Your task to perform on an android device: turn on bluetooth scan Image 0: 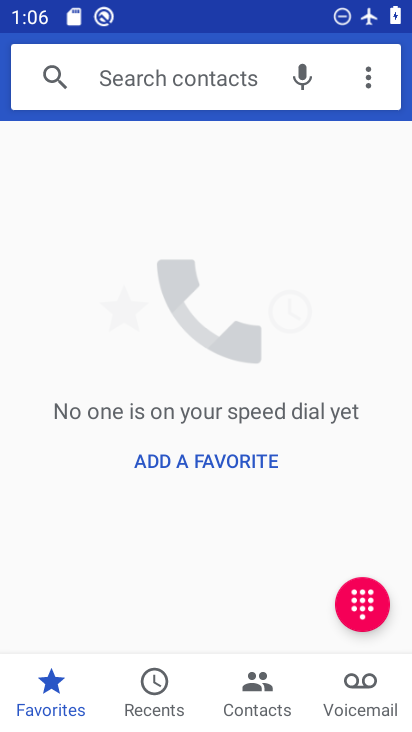
Step 0: press home button
Your task to perform on an android device: turn on bluetooth scan Image 1: 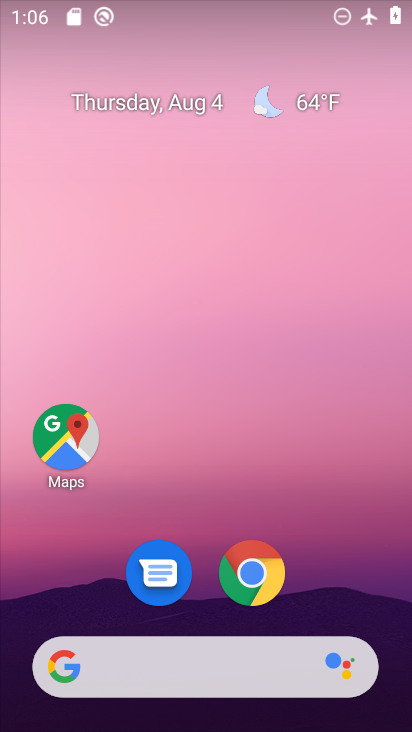
Step 1: drag from (353, 555) to (339, 111)
Your task to perform on an android device: turn on bluetooth scan Image 2: 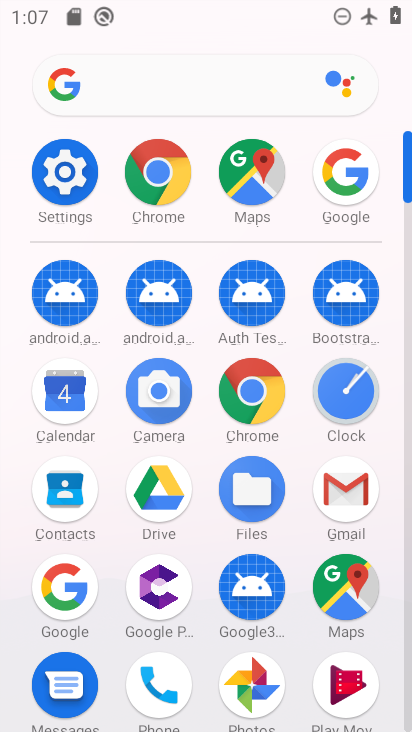
Step 2: click (65, 166)
Your task to perform on an android device: turn on bluetooth scan Image 3: 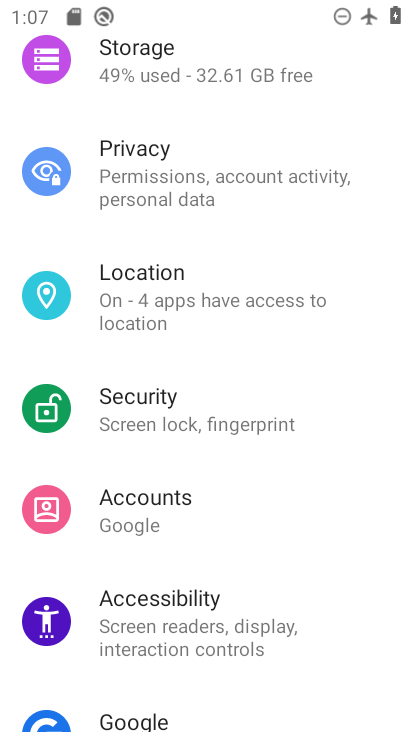
Step 3: click (192, 308)
Your task to perform on an android device: turn on bluetooth scan Image 4: 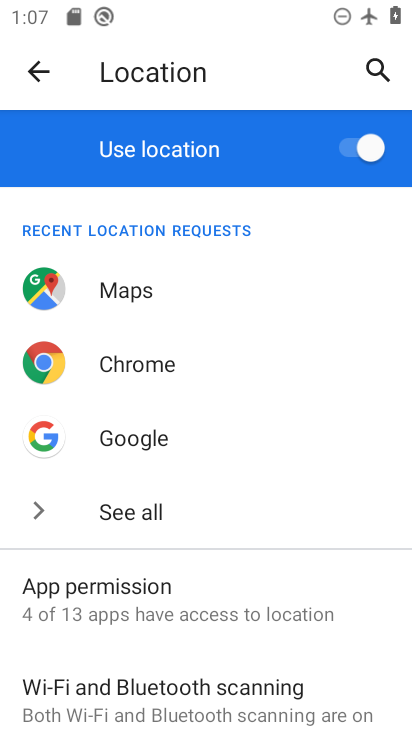
Step 4: drag from (250, 640) to (240, 220)
Your task to perform on an android device: turn on bluetooth scan Image 5: 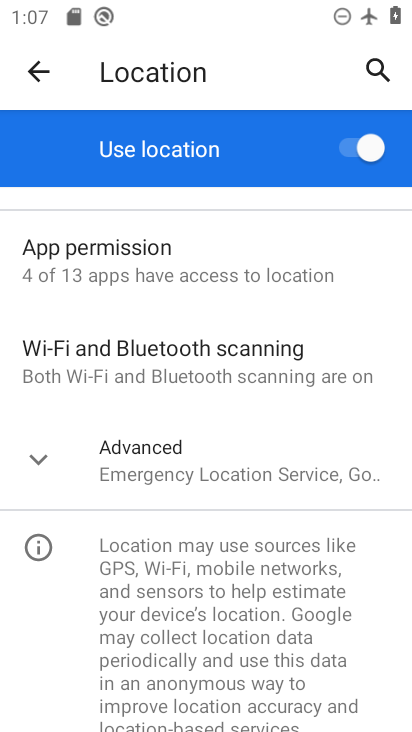
Step 5: click (204, 367)
Your task to perform on an android device: turn on bluetooth scan Image 6: 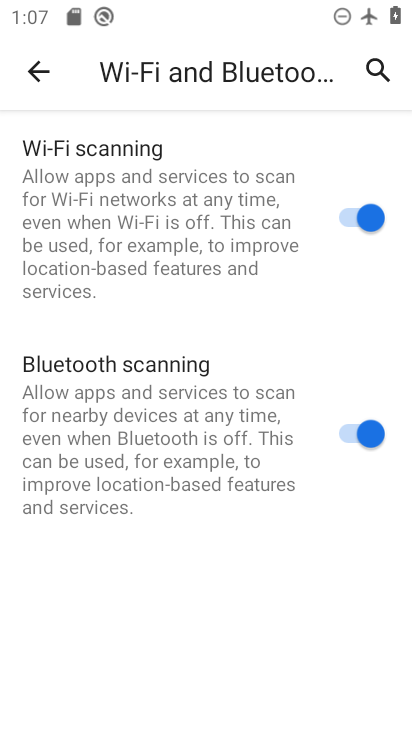
Step 6: task complete